Your task to perform on an android device: Search for seafood restaurants on Google Maps Image 0: 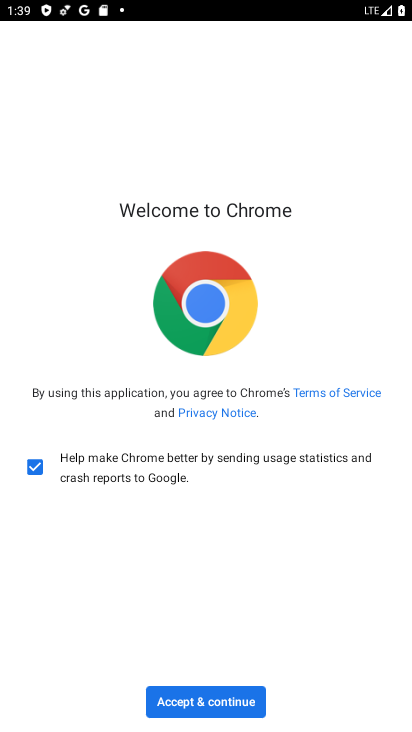
Step 0: press home button
Your task to perform on an android device: Search for seafood restaurants on Google Maps Image 1: 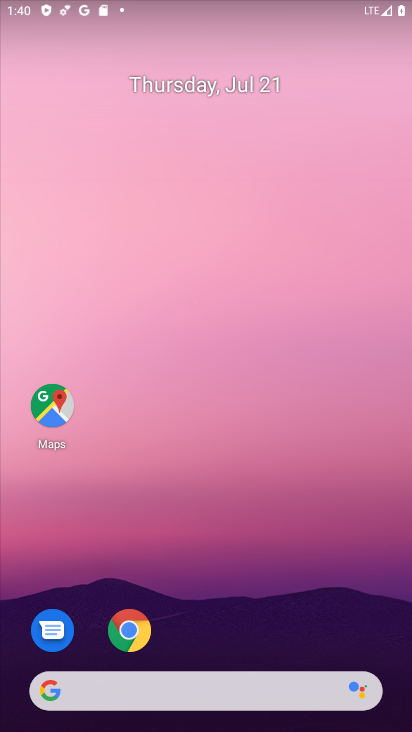
Step 1: click (65, 405)
Your task to perform on an android device: Search for seafood restaurants on Google Maps Image 2: 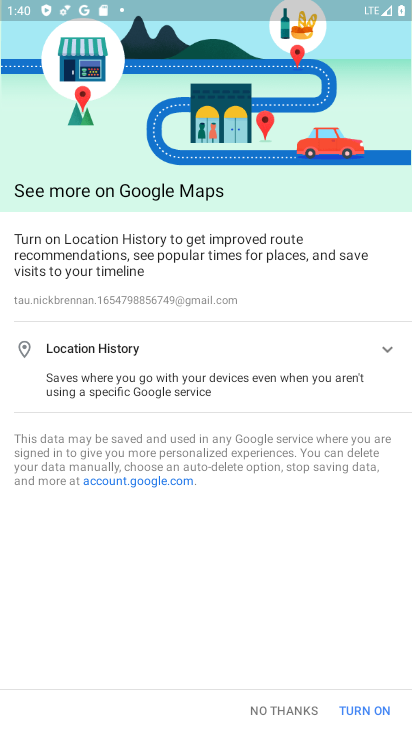
Step 2: click (288, 711)
Your task to perform on an android device: Search for seafood restaurants on Google Maps Image 3: 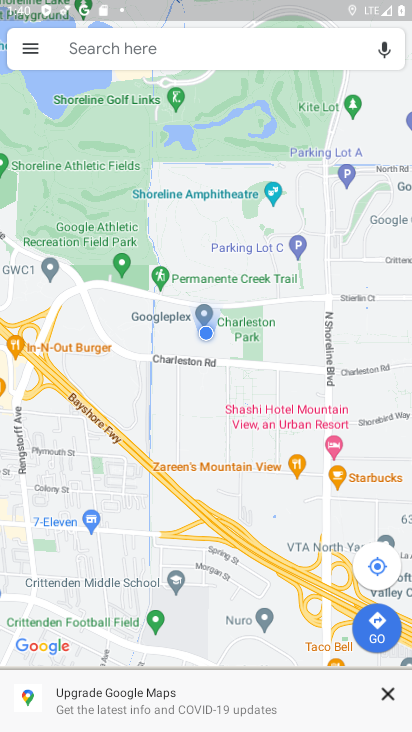
Step 3: click (180, 40)
Your task to perform on an android device: Search for seafood restaurants on Google Maps Image 4: 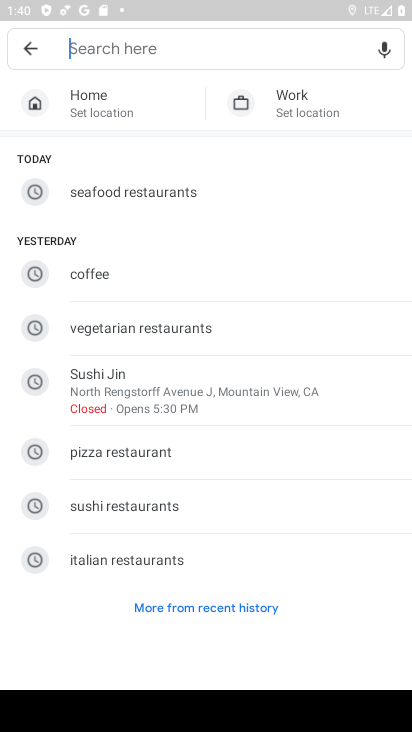
Step 4: click (164, 184)
Your task to perform on an android device: Search for seafood restaurants on Google Maps Image 5: 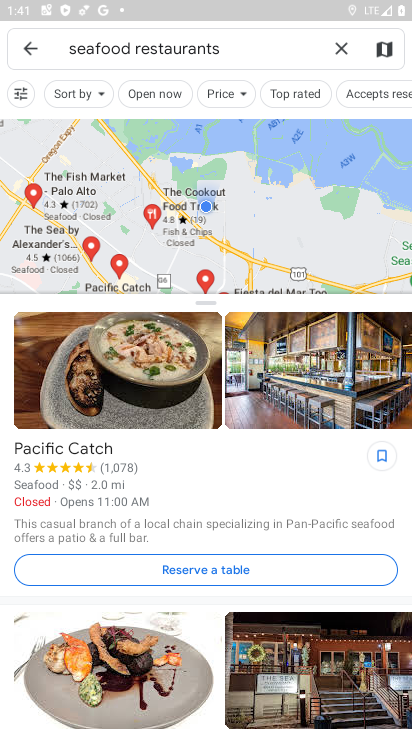
Step 5: task complete